Your task to perform on an android device: Go to ESPN.com Image 0: 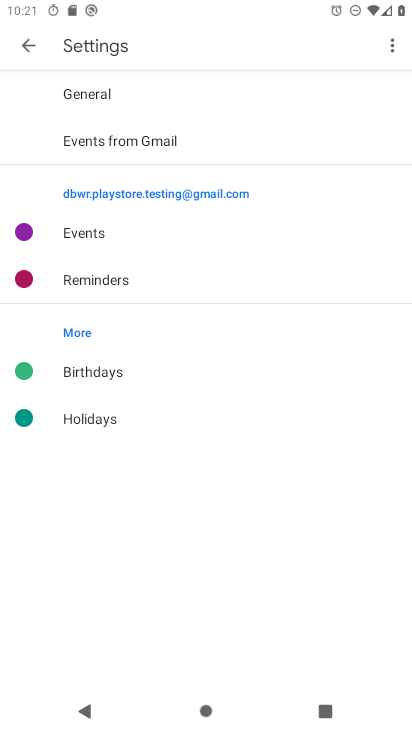
Step 0: press home button
Your task to perform on an android device: Go to ESPN.com Image 1: 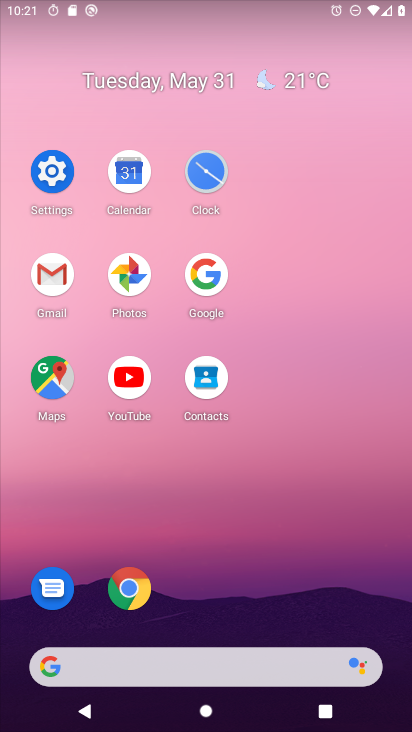
Step 1: click (139, 588)
Your task to perform on an android device: Go to ESPN.com Image 2: 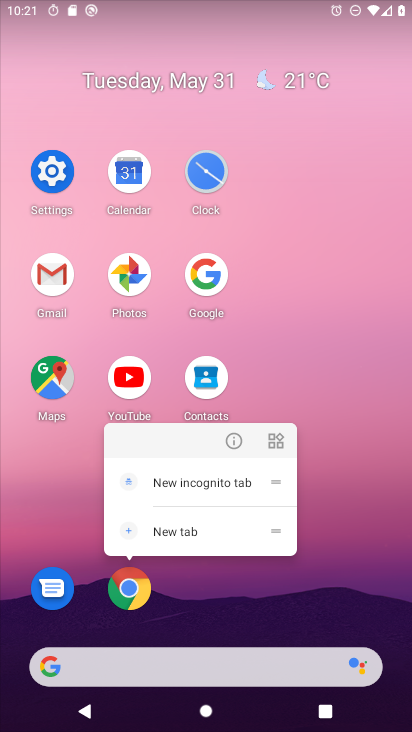
Step 2: click (126, 602)
Your task to perform on an android device: Go to ESPN.com Image 3: 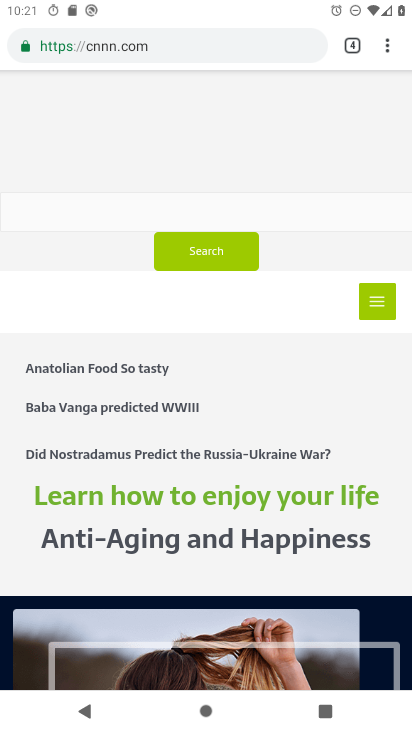
Step 3: click (355, 44)
Your task to perform on an android device: Go to ESPN.com Image 4: 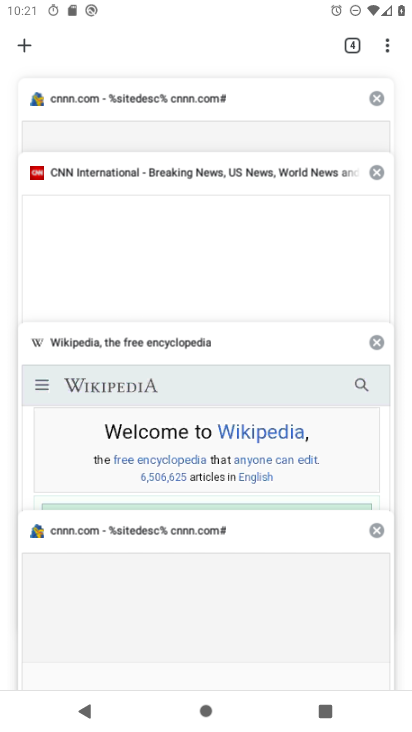
Step 4: click (25, 46)
Your task to perform on an android device: Go to ESPN.com Image 5: 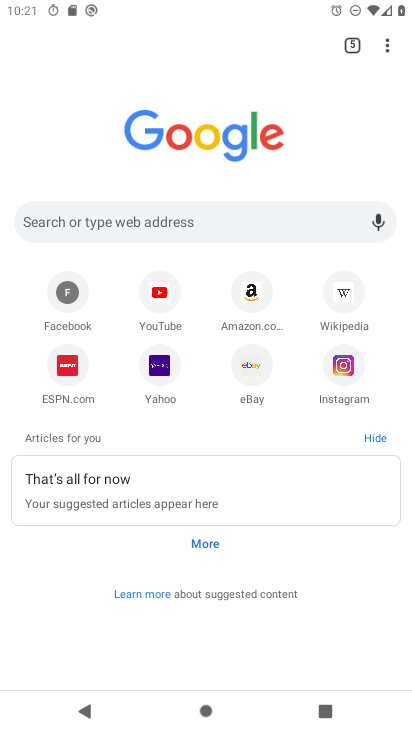
Step 5: click (75, 369)
Your task to perform on an android device: Go to ESPN.com Image 6: 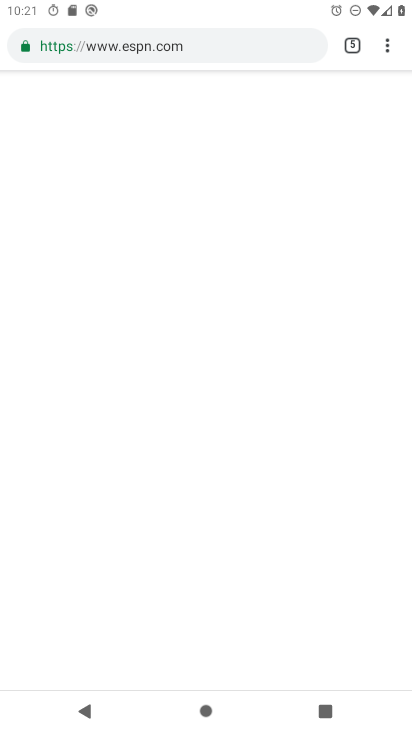
Step 6: task complete